Your task to perform on an android device: all mails in gmail Image 0: 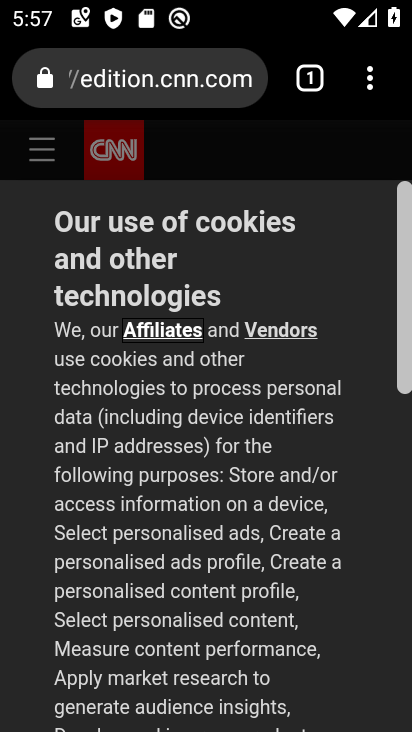
Step 0: press home button
Your task to perform on an android device: all mails in gmail Image 1: 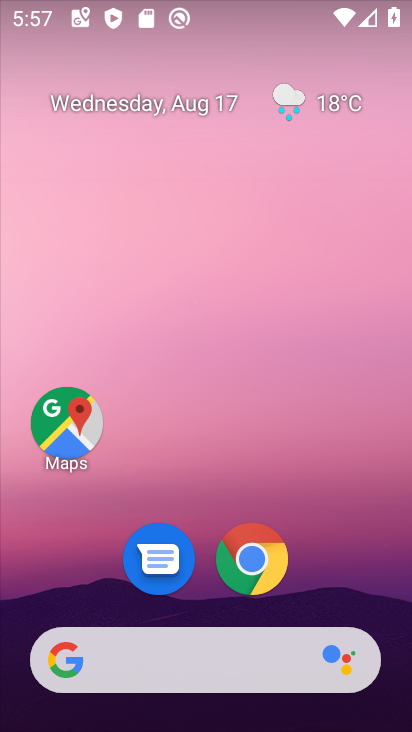
Step 1: drag from (202, 447) to (107, 9)
Your task to perform on an android device: all mails in gmail Image 2: 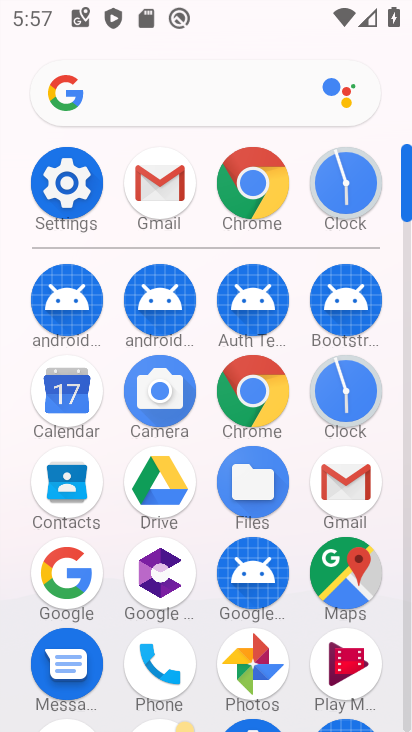
Step 2: click (142, 193)
Your task to perform on an android device: all mails in gmail Image 3: 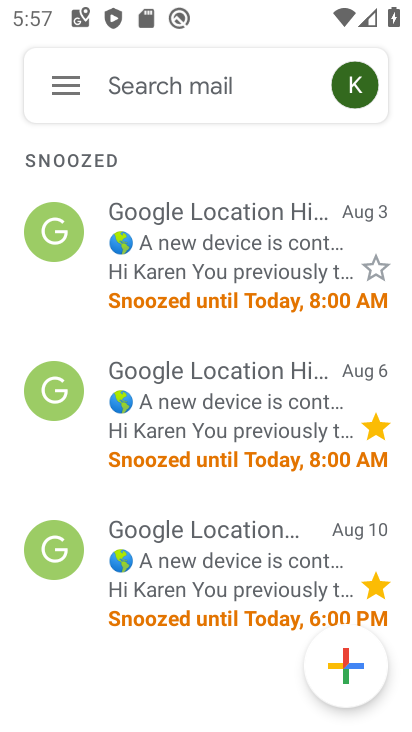
Step 3: click (72, 95)
Your task to perform on an android device: all mails in gmail Image 4: 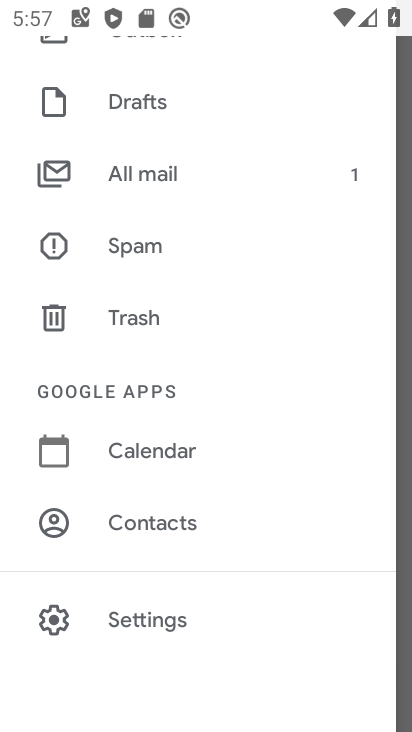
Step 4: click (125, 164)
Your task to perform on an android device: all mails in gmail Image 5: 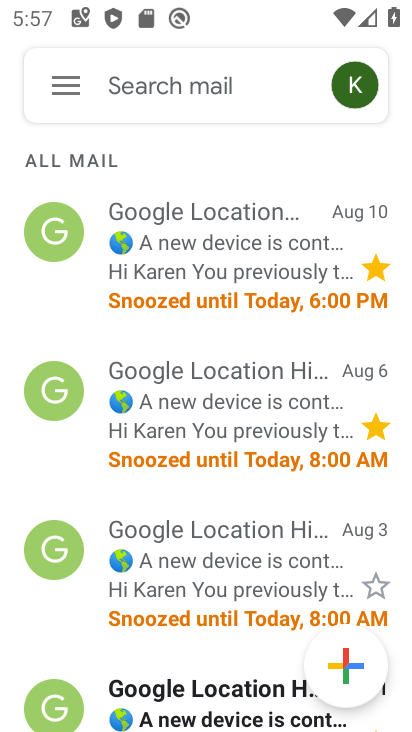
Step 5: task complete